Your task to perform on an android device: Open the map Image 0: 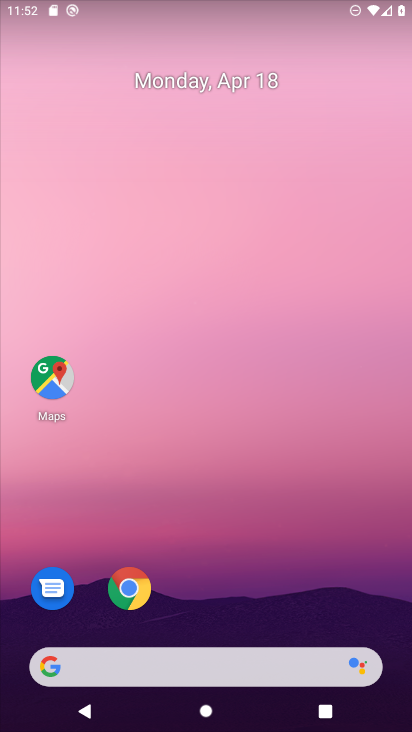
Step 0: drag from (266, 485) to (221, 10)
Your task to perform on an android device: Open the map Image 1: 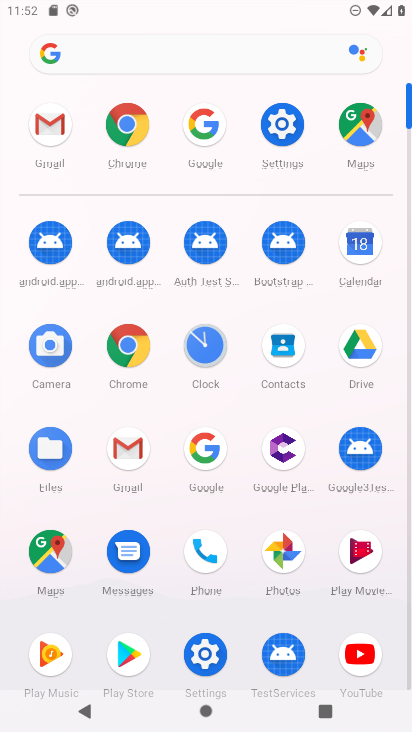
Step 1: click (362, 120)
Your task to perform on an android device: Open the map Image 2: 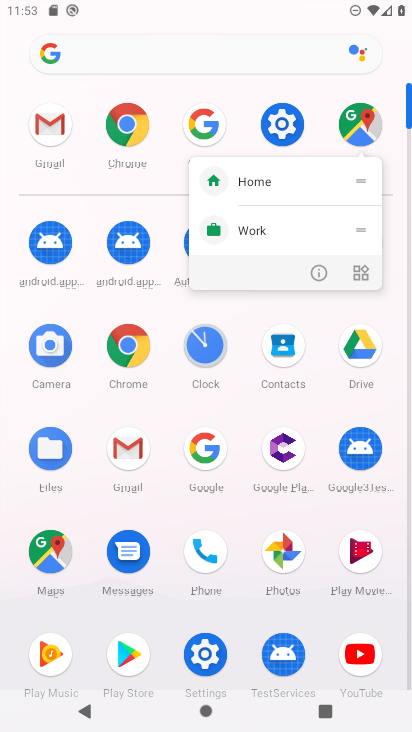
Step 2: click (362, 120)
Your task to perform on an android device: Open the map Image 3: 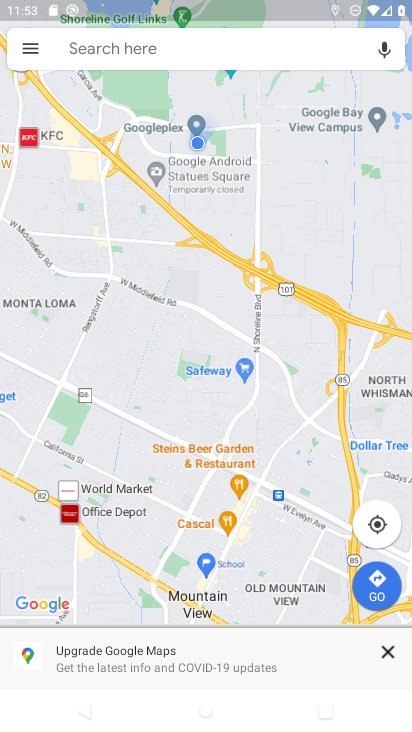
Step 3: task complete